Your task to perform on an android device: Search for "dell xps" on amazon, select the first entry, add it to the cart, then select checkout. Image 0: 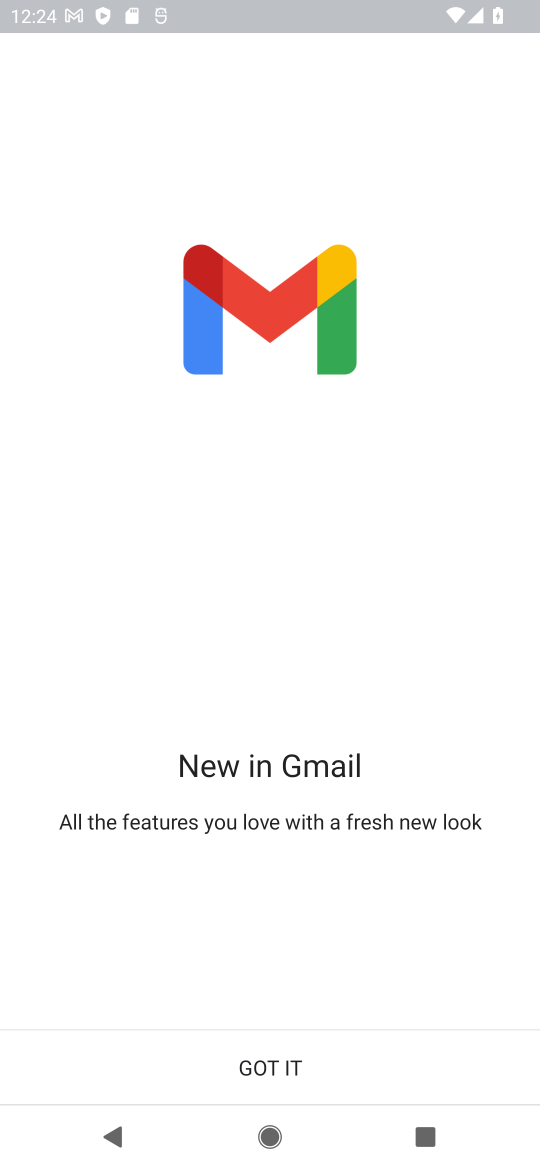
Step 0: press home button
Your task to perform on an android device: Search for "dell xps" on amazon, select the first entry, add it to the cart, then select checkout. Image 1: 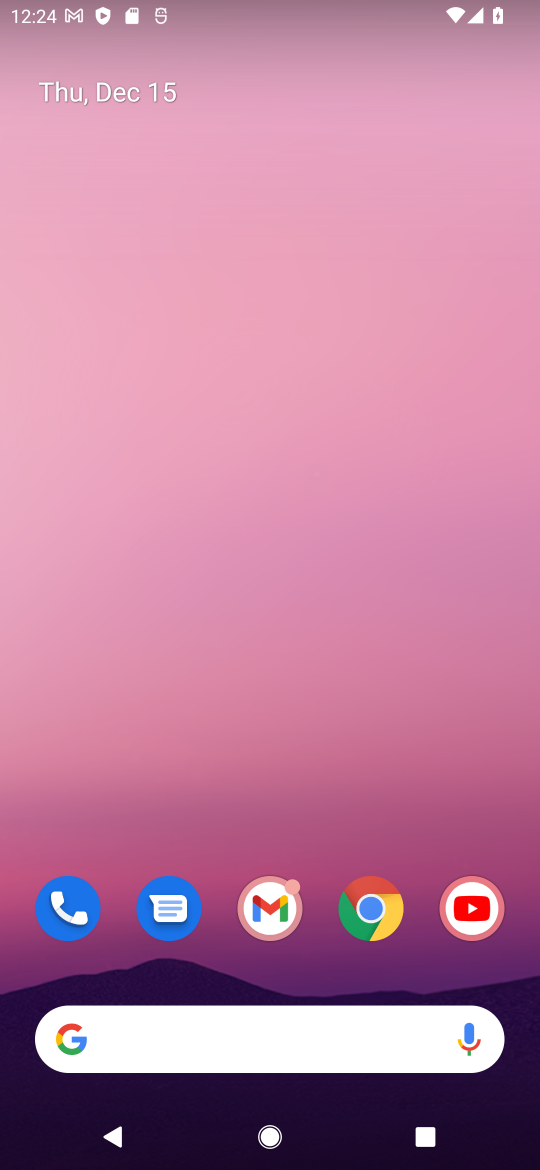
Step 1: click (372, 911)
Your task to perform on an android device: Search for "dell xps" on amazon, select the first entry, add it to the cart, then select checkout. Image 2: 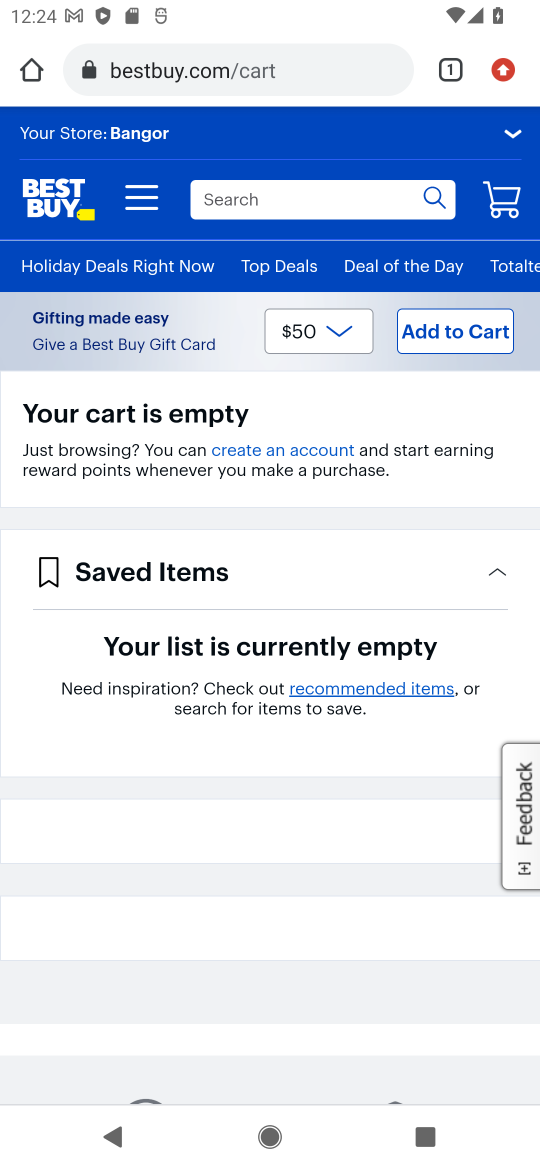
Step 2: click (196, 66)
Your task to perform on an android device: Search for "dell xps" on amazon, select the first entry, add it to the cart, then select checkout. Image 3: 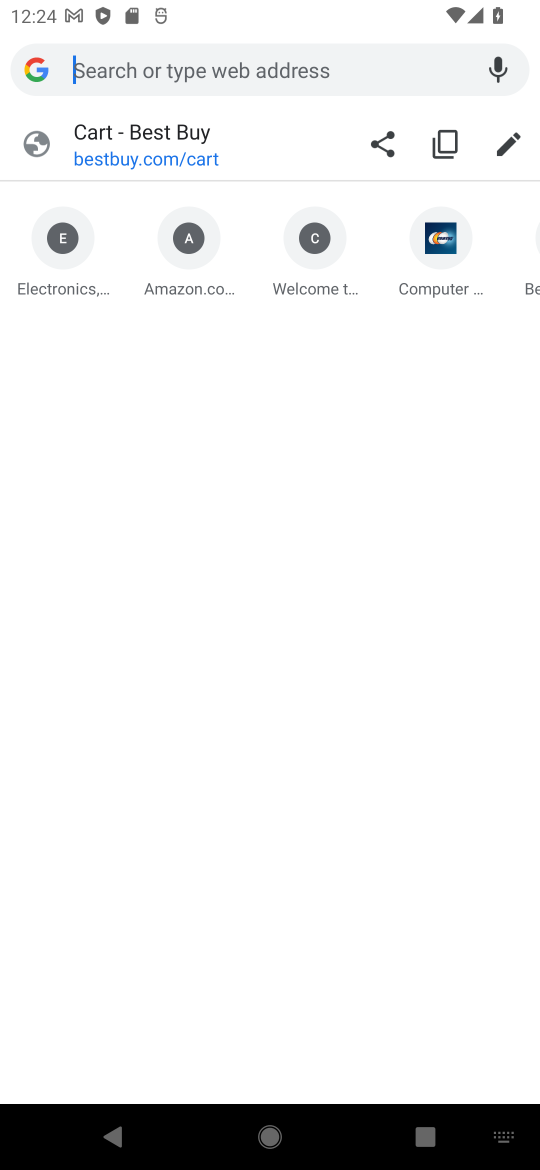
Step 3: click (207, 294)
Your task to perform on an android device: Search for "dell xps" on amazon, select the first entry, add it to the cart, then select checkout. Image 4: 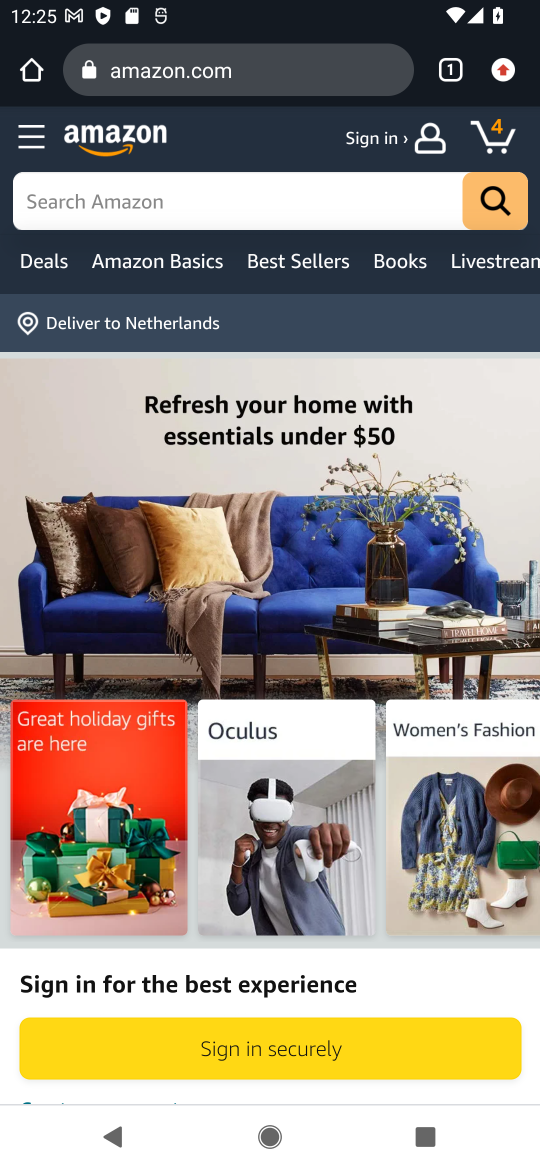
Step 4: click (142, 207)
Your task to perform on an android device: Search for "dell xps" on amazon, select the first entry, add it to the cart, then select checkout. Image 5: 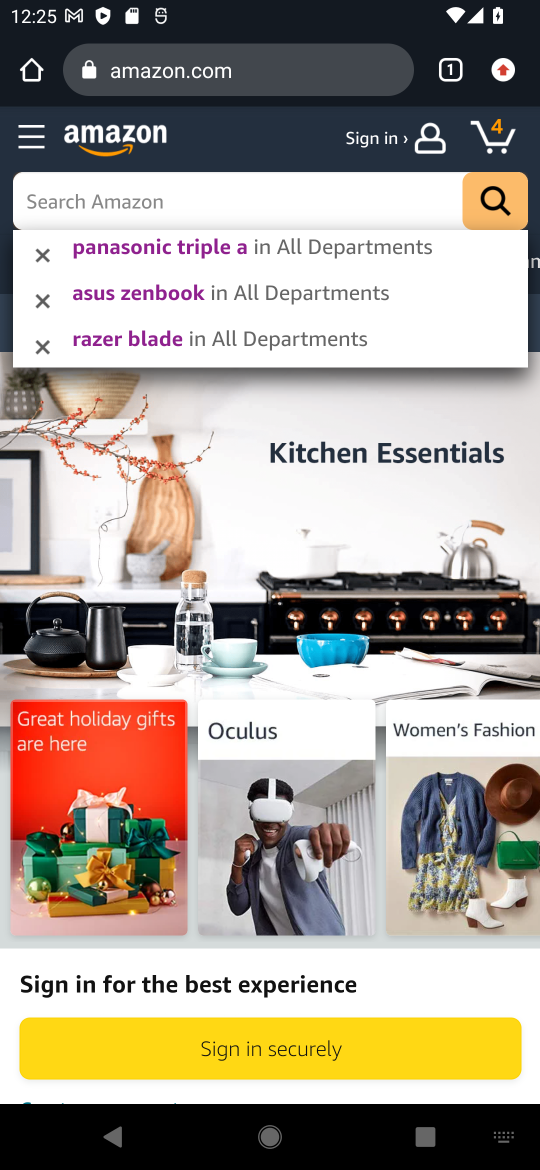
Step 5: type "dell xps"
Your task to perform on an android device: Search for "dell xps" on amazon, select the first entry, add it to the cart, then select checkout. Image 6: 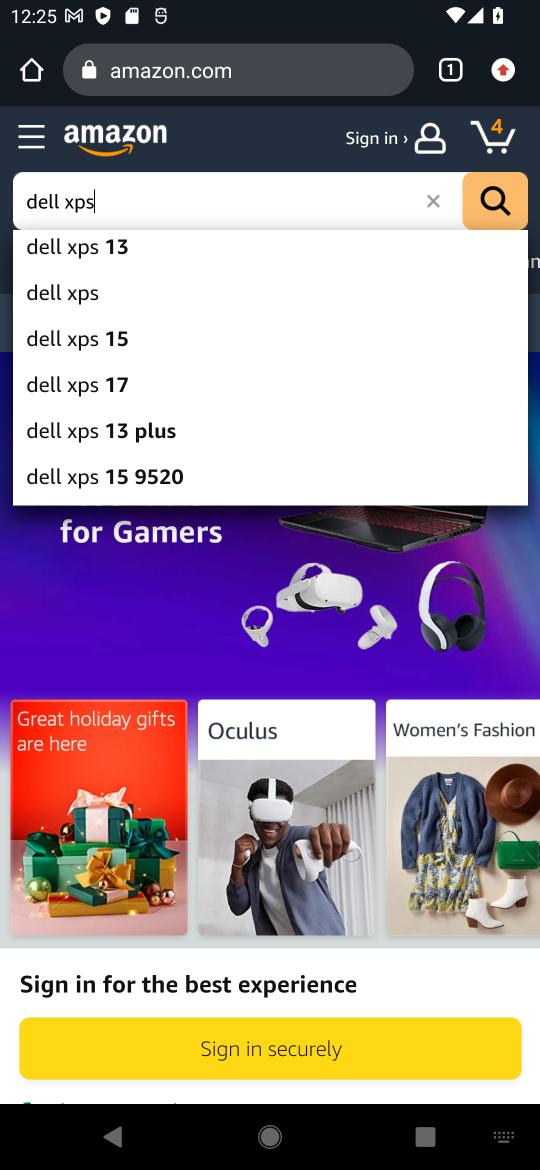
Step 6: click (61, 289)
Your task to perform on an android device: Search for "dell xps" on amazon, select the first entry, add it to the cart, then select checkout. Image 7: 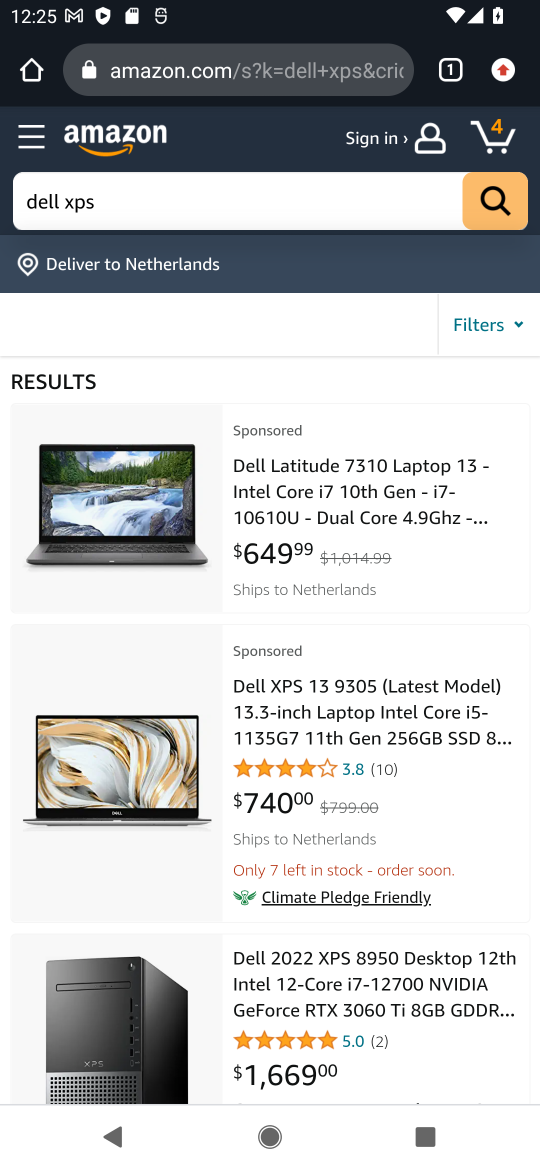
Step 7: task complete